Your task to perform on an android device: Show me productivity apps on the Play Store Image 0: 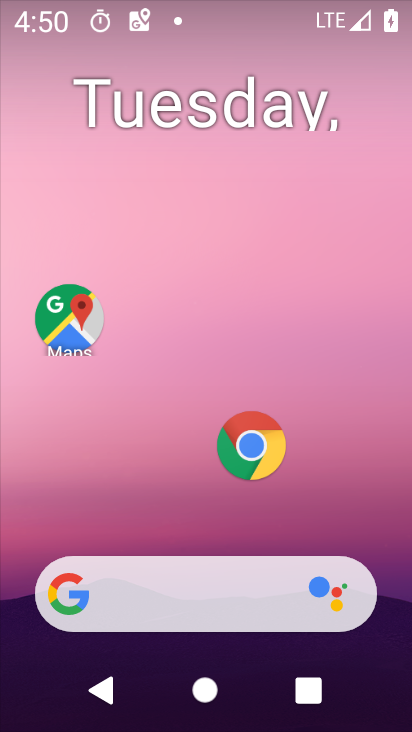
Step 0: drag from (155, 524) to (147, 3)
Your task to perform on an android device: Show me productivity apps on the Play Store Image 1: 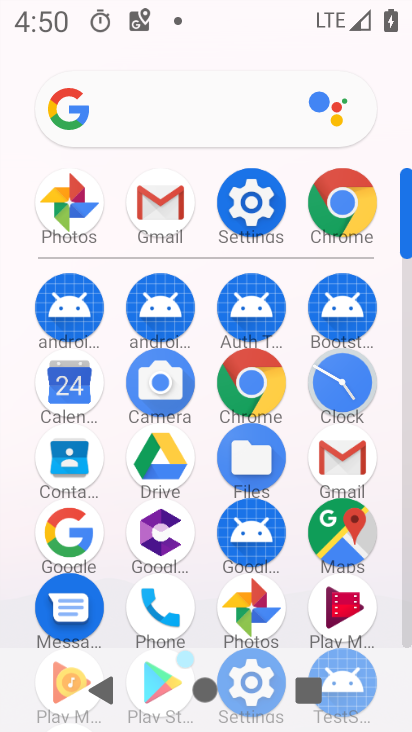
Step 1: drag from (120, 578) to (150, 216)
Your task to perform on an android device: Show me productivity apps on the Play Store Image 2: 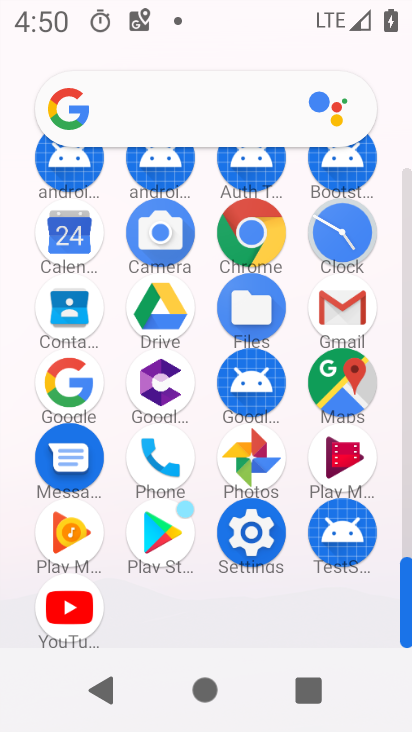
Step 2: click (171, 544)
Your task to perform on an android device: Show me productivity apps on the Play Store Image 3: 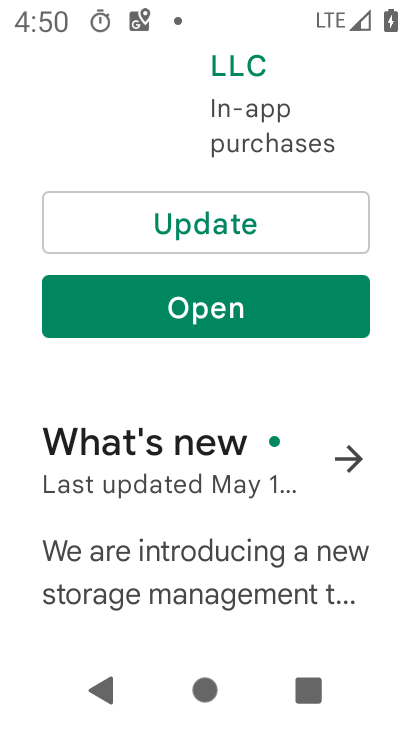
Step 3: click (152, 453)
Your task to perform on an android device: Show me productivity apps on the Play Store Image 4: 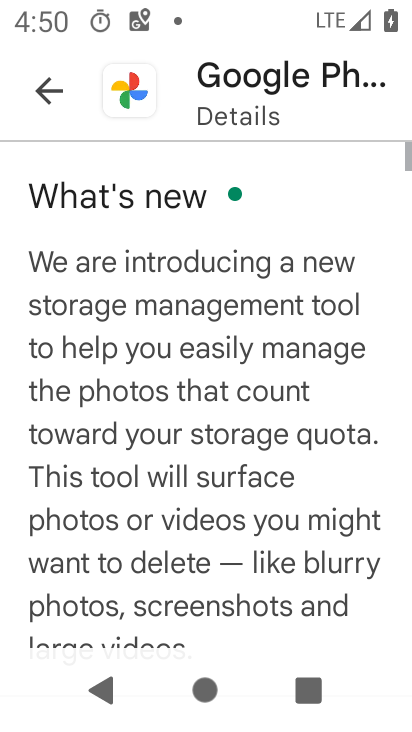
Step 4: press back button
Your task to perform on an android device: Show me productivity apps on the Play Store Image 5: 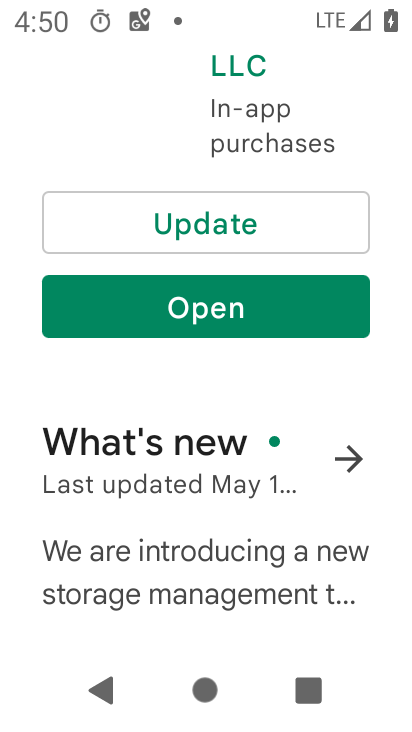
Step 5: drag from (201, 128) to (156, 582)
Your task to perform on an android device: Show me productivity apps on the Play Store Image 6: 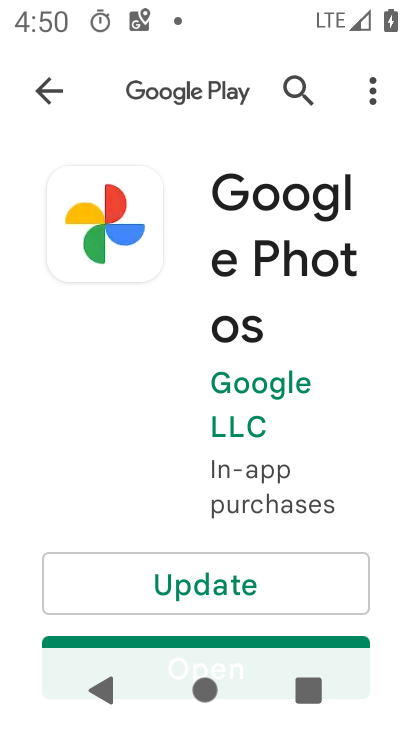
Step 6: press back button
Your task to perform on an android device: Show me productivity apps on the Play Store Image 7: 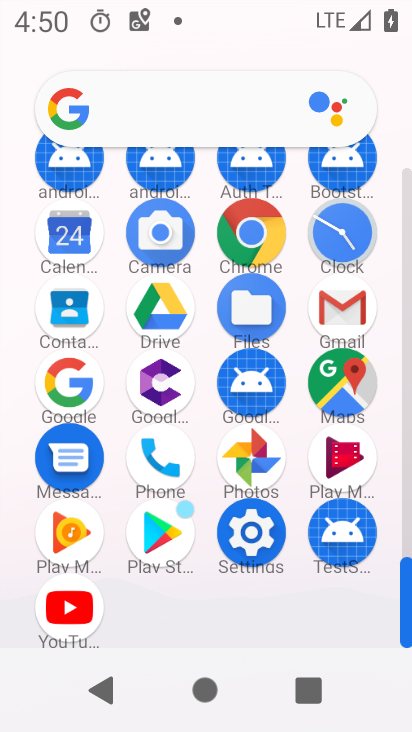
Step 7: click (164, 535)
Your task to perform on an android device: Show me productivity apps on the Play Store Image 8: 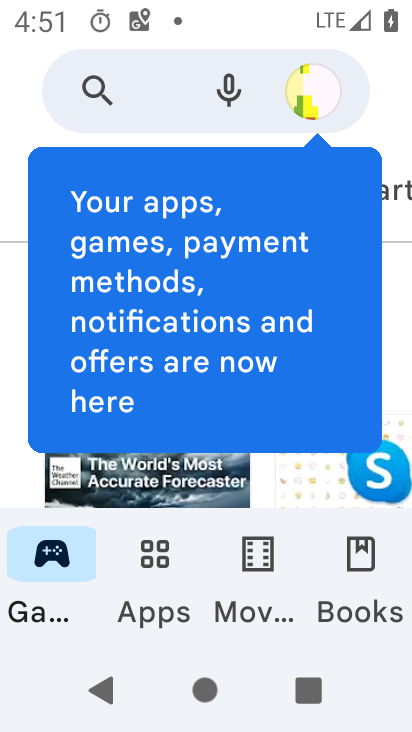
Step 8: click (166, 579)
Your task to perform on an android device: Show me productivity apps on the Play Store Image 9: 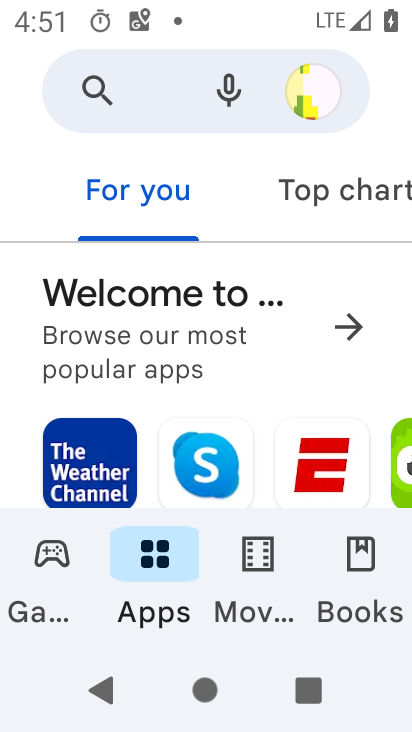
Step 9: drag from (339, 194) to (55, 149)
Your task to perform on an android device: Show me productivity apps on the Play Store Image 10: 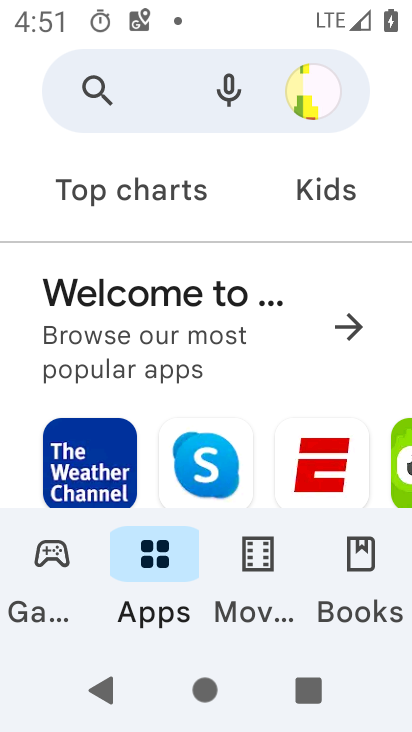
Step 10: drag from (319, 185) to (71, 182)
Your task to perform on an android device: Show me productivity apps on the Play Store Image 11: 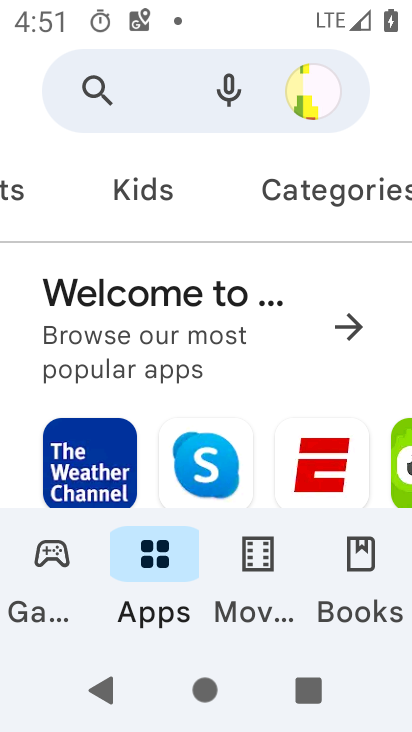
Step 11: click (332, 199)
Your task to perform on an android device: Show me productivity apps on the Play Store Image 12: 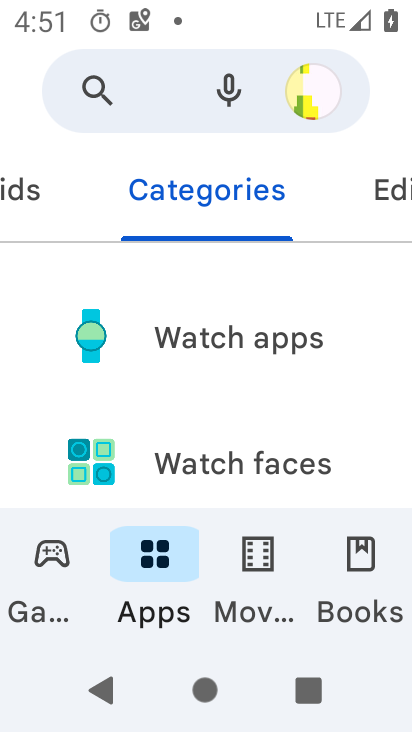
Step 12: drag from (219, 484) to (275, 222)
Your task to perform on an android device: Show me productivity apps on the Play Store Image 13: 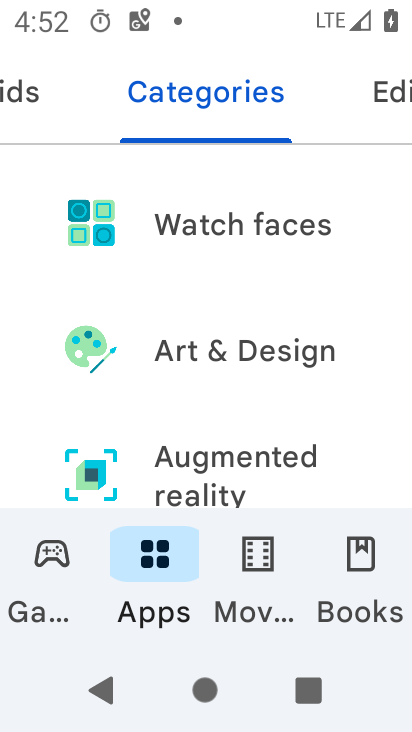
Step 13: drag from (225, 449) to (225, 24)
Your task to perform on an android device: Show me productivity apps on the Play Store Image 14: 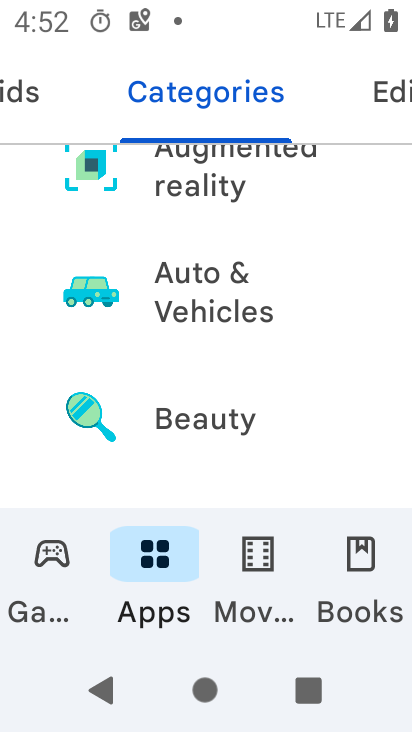
Step 14: drag from (183, 437) to (209, 5)
Your task to perform on an android device: Show me productivity apps on the Play Store Image 15: 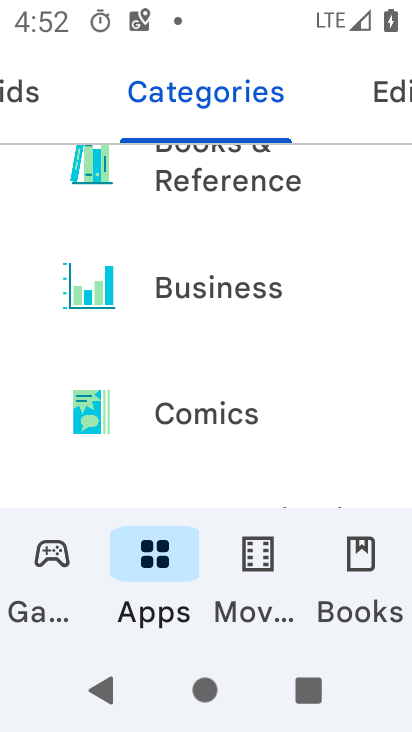
Step 15: drag from (194, 439) to (241, 115)
Your task to perform on an android device: Show me productivity apps on the Play Store Image 16: 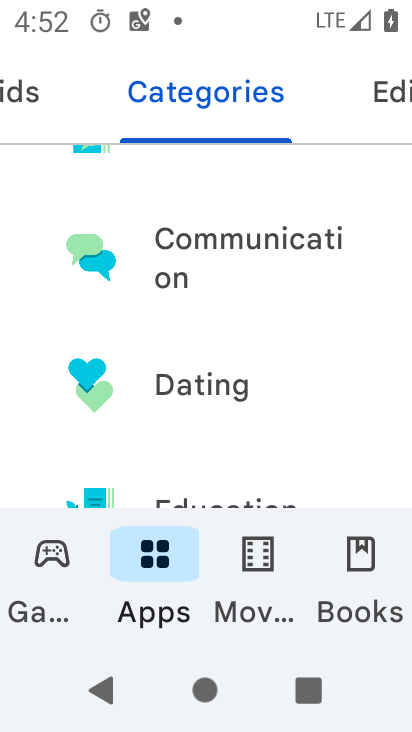
Step 16: drag from (170, 440) to (275, 1)
Your task to perform on an android device: Show me productivity apps on the Play Store Image 17: 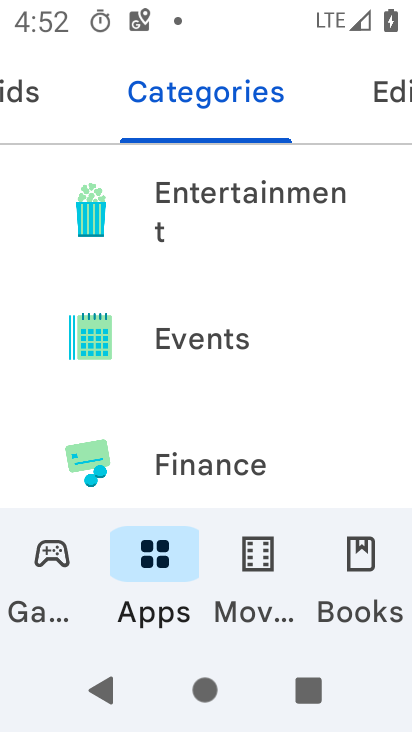
Step 17: drag from (184, 453) to (252, 46)
Your task to perform on an android device: Show me productivity apps on the Play Store Image 18: 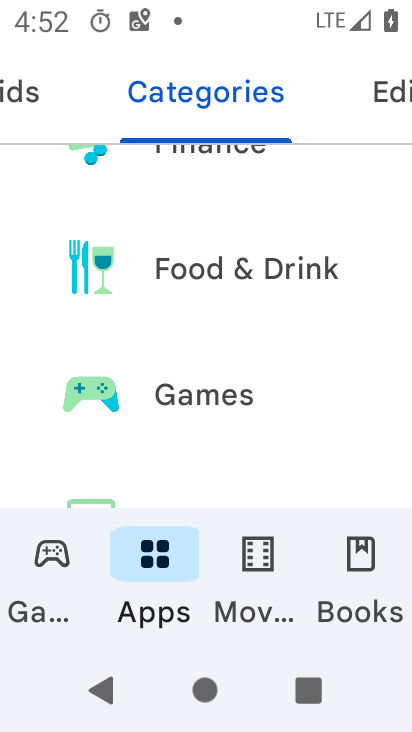
Step 18: drag from (218, 401) to (269, 83)
Your task to perform on an android device: Show me productivity apps on the Play Store Image 19: 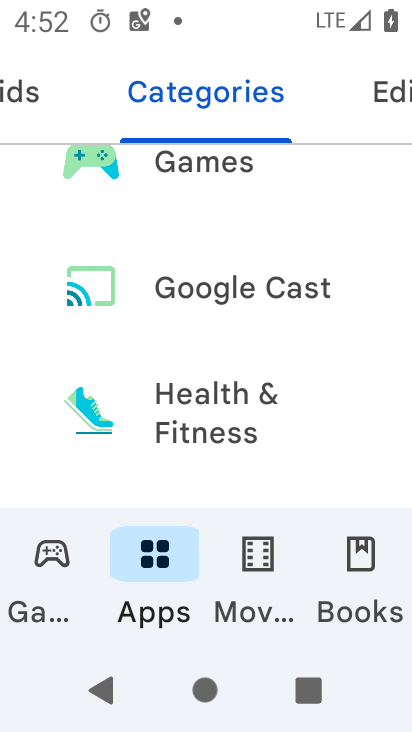
Step 19: drag from (174, 485) to (246, 122)
Your task to perform on an android device: Show me productivity apps on the Play Store Image 20: 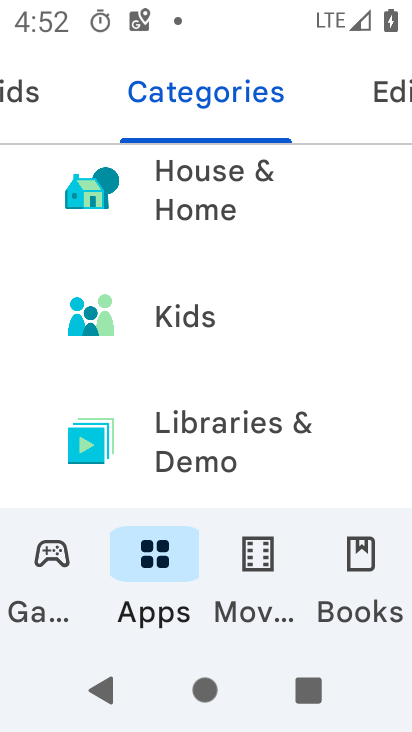
Step 20: drag from (218, 457) to (288, 3)
Your task to perform on an android device: Show me productivity apps on the Play Store Image 21: 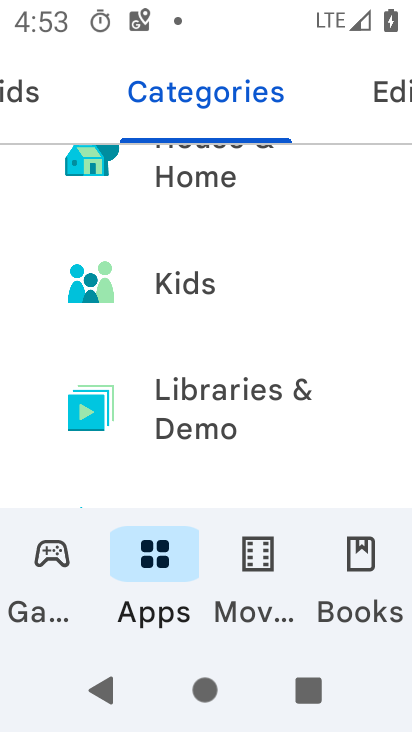
Step 21: drag from (209, 417) to (248, 101)
Your task to perform on an android device: Show me productivity apps on the Play Store Image 22: 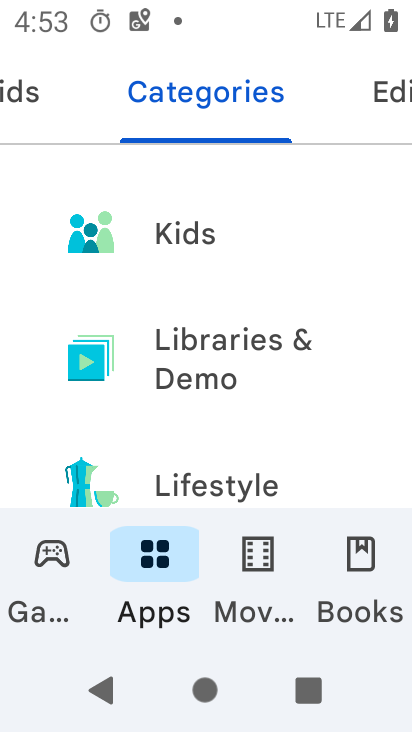
Step 22: drag from (196, 274) to (274, 4)
Your task to perform on an android device: Show me productivity apps on the Play Store Image 23: 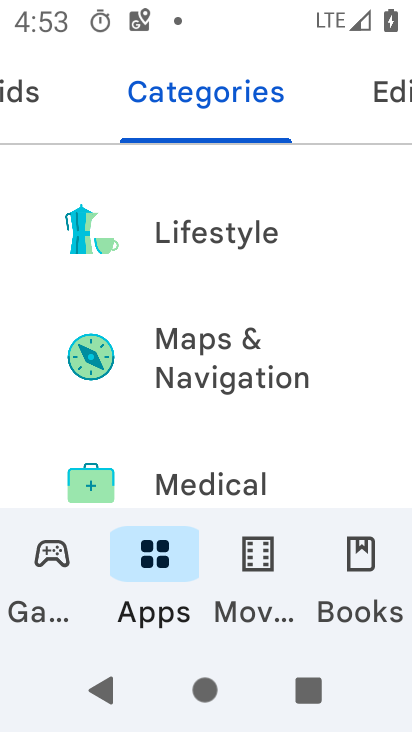
Step 23: drag from (195, 443) to (238, 103)
Your task to perform on an android device: Show me productivity apps on the Play Store Image 24: 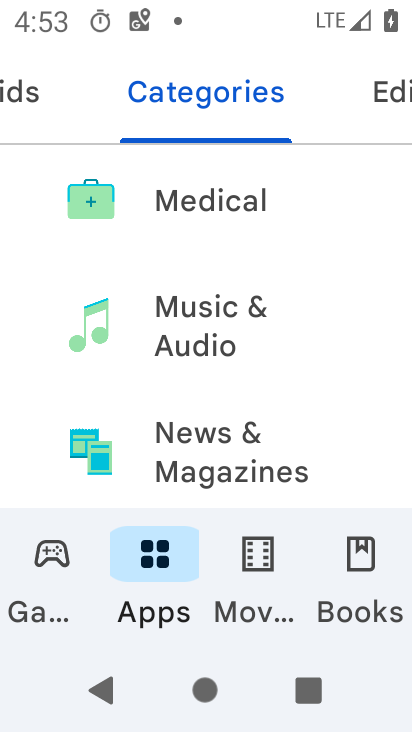
Step 24: drag from (220, 427) to (318, 2)
Your task to perform on an android device: Show me productivity apps on the Play Store Image 25: 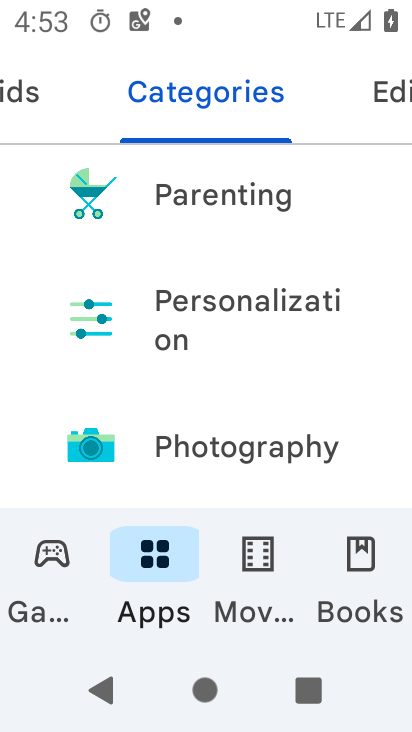
Step 25: drag from (217, 464) to (245, 217)
Your task to perform on an android device: Show me productivity apps on the Play Store Image 26: 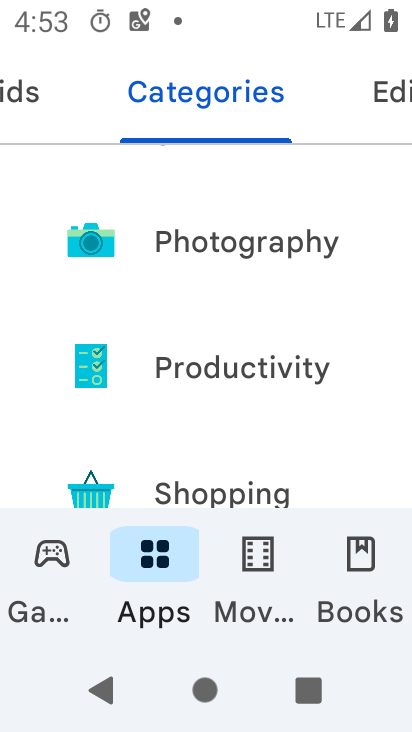
Step 26: click (245, 368)
Your task to perform on an android device: Show me productivity apps on the Play Store Image 27: 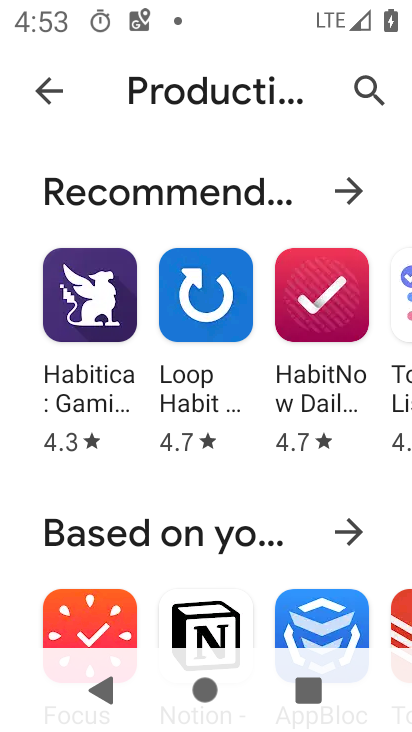
Step 27: task complete